Your task to perform on an android device: see tabs open on other devices in the chrome app Image 0: 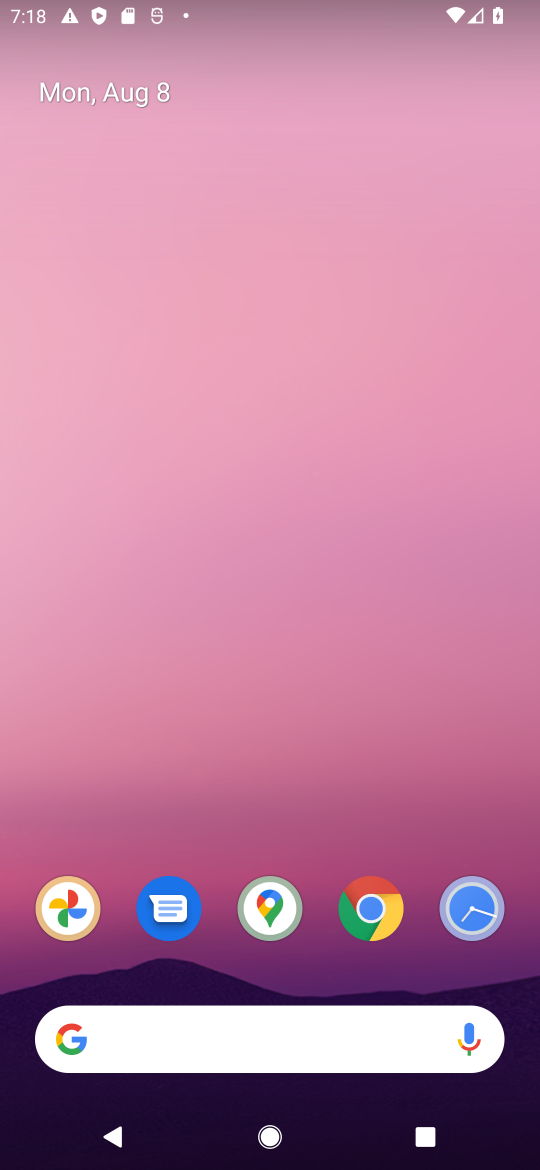
Step 0: click (382, 901)
Your task to perform on an android device: see tabs open on other devices in the chrome app Image 1: 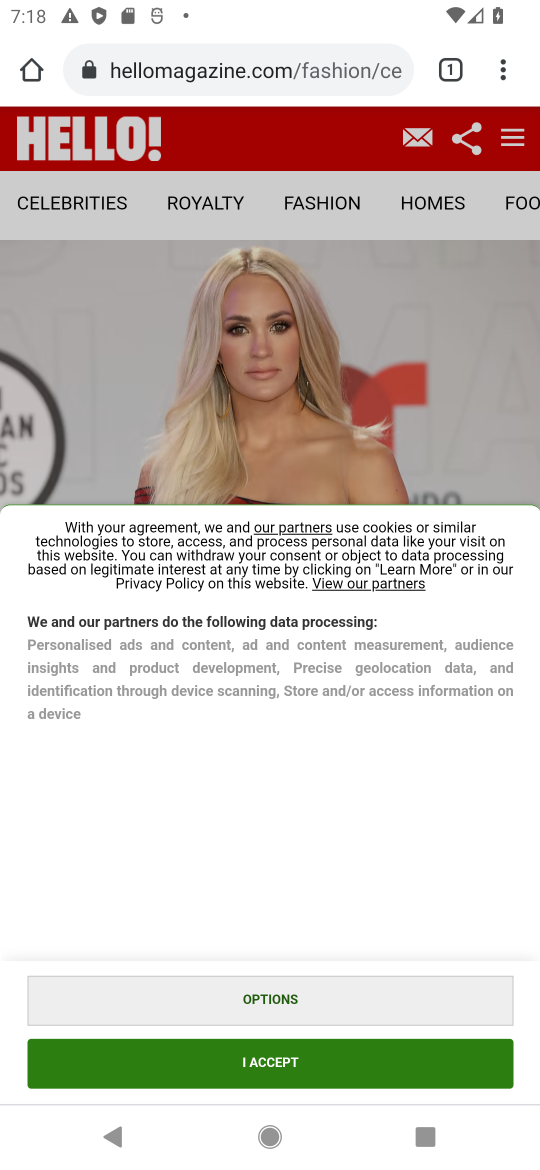
Step 1: click (512, 61)
Your task to perform on an android device: see tabs open on other devices in the chrome app Image 2: 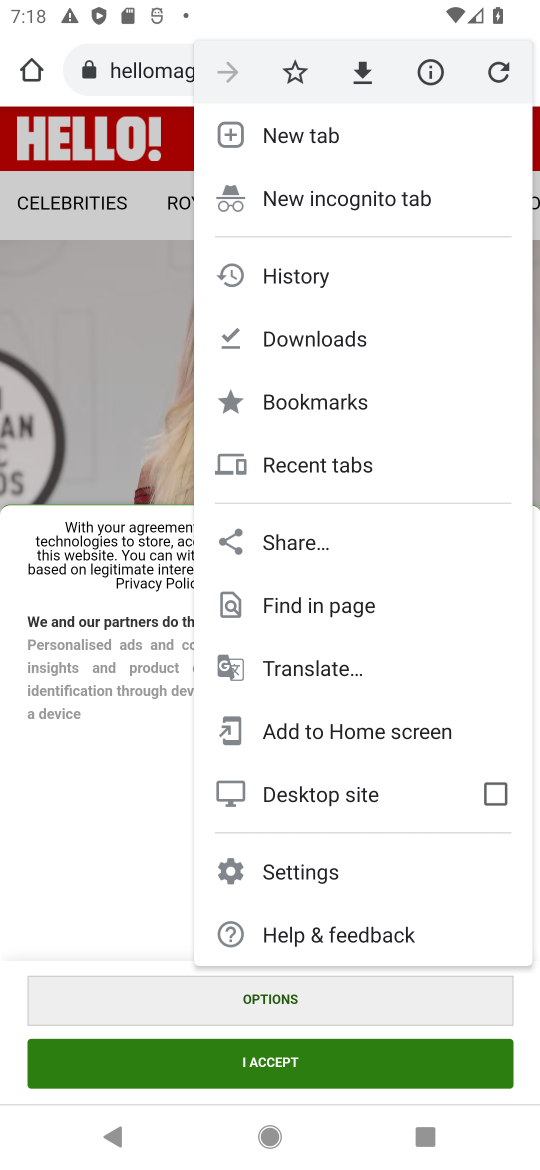
Step 2: click (307, 854)
Your task to perform on an android device: see tabs open on other devices in the chrome app Image 3: 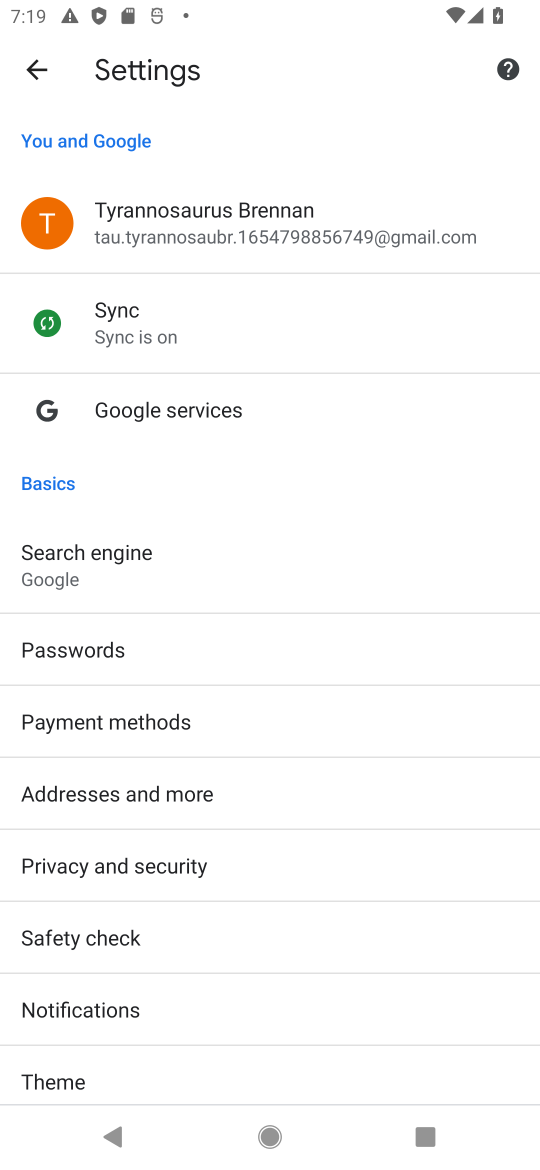
Step 3: click (49, 81)
Your task to perform on an android device: see tabs open on other devices in the chrome app Image 4: 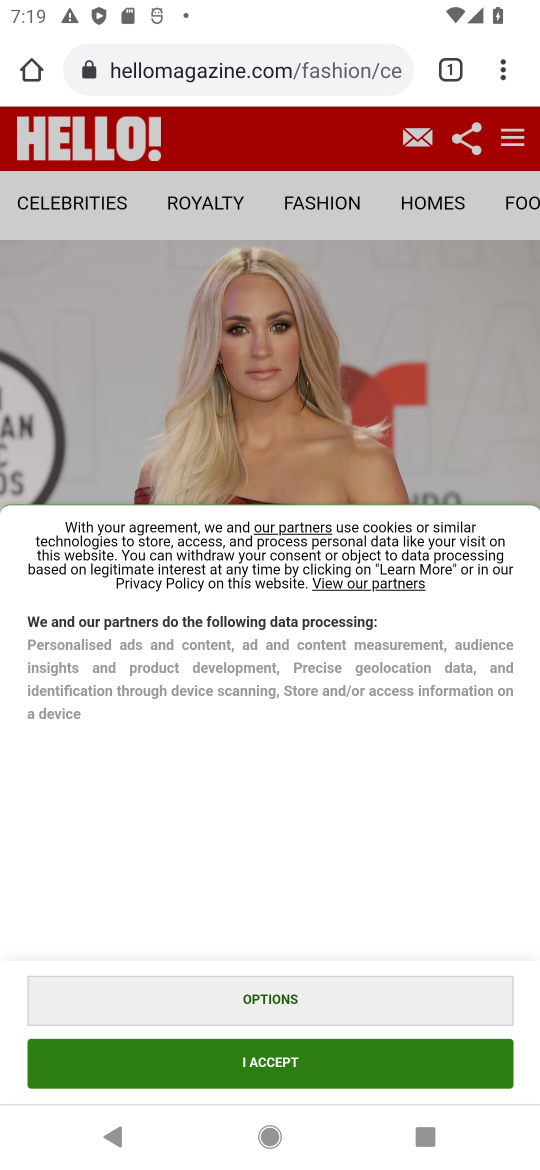
Step 4: click (519, 84)
Your task to perform on an android device: see tabs open on other devices in the chrome app Image 5: 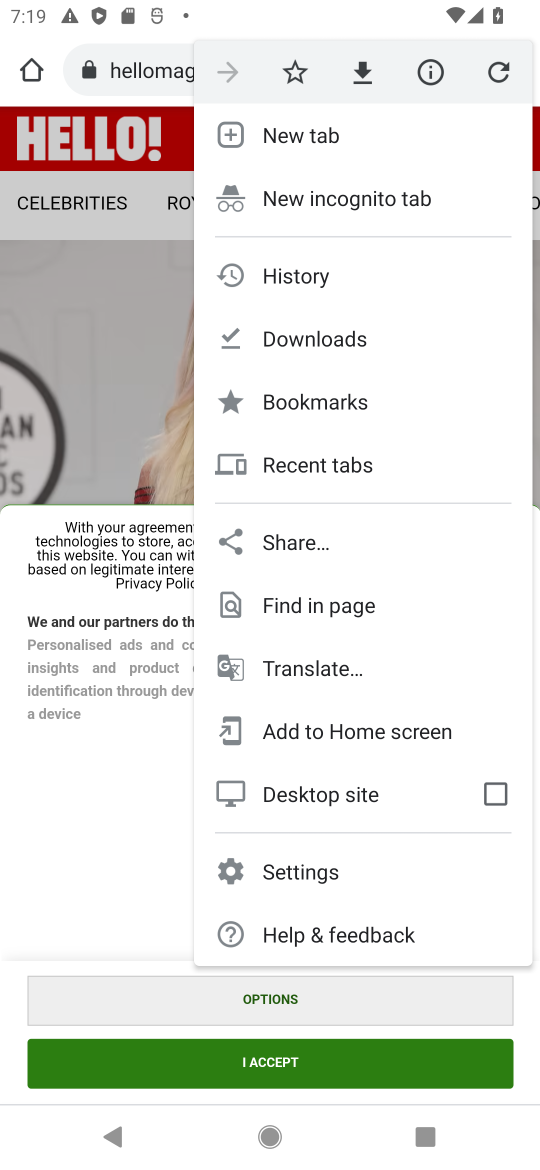
Step 5: click (316, 473)
Your task to perform on an android device: see tabs open on other devices in the chrome app Image 6: 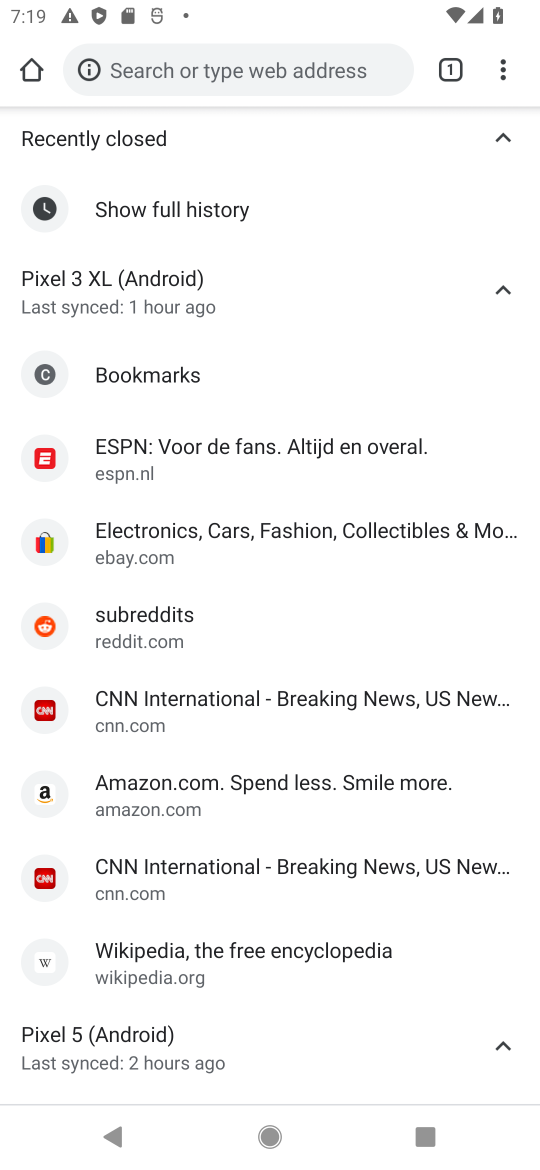
Step 6: task complete